Your task to perform on an android device: Turn on the flashlight Image 0: 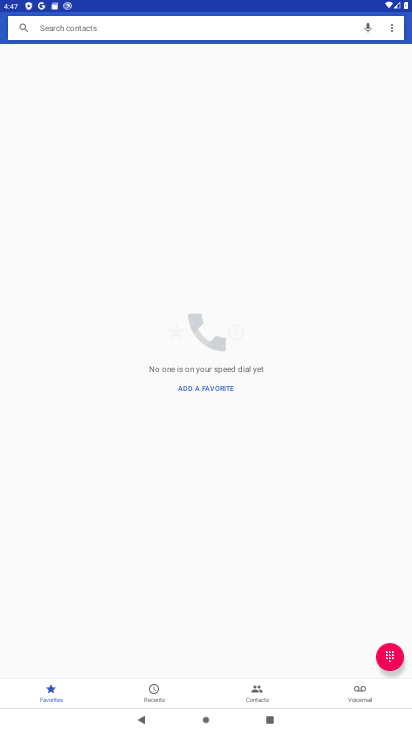
Step 0: press home button
Your task to perform on an android device: Turn on the flashlight Image 1: 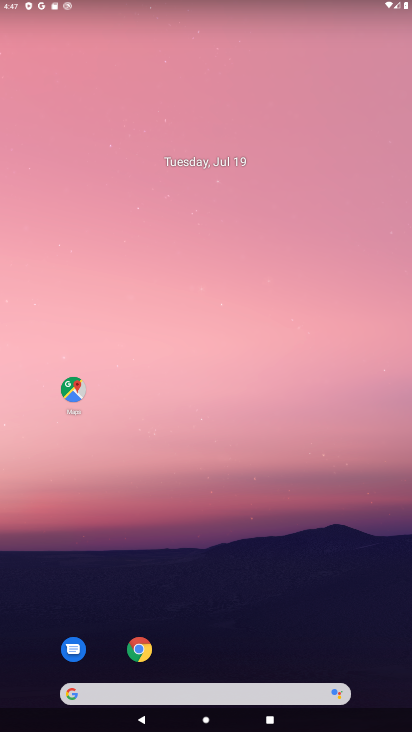
Step 1: drag from (204, 659) to (196, 52)
Your task to perform on an android device: Turn on the flashlight Image 2: 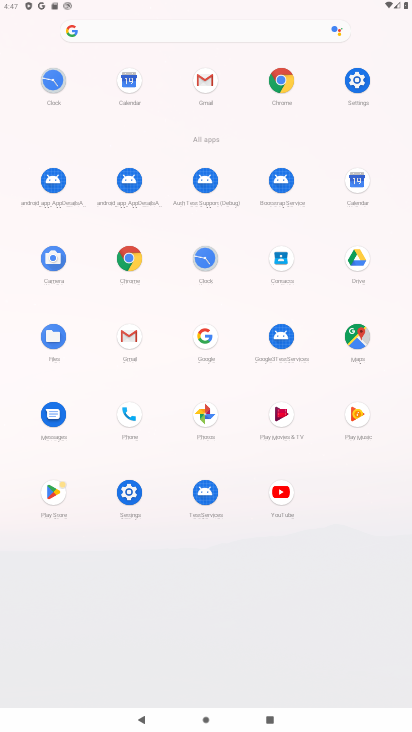
Step 2: click (357, 76)
Your task to perform on an android device: Turn on the flashlight Image 3: 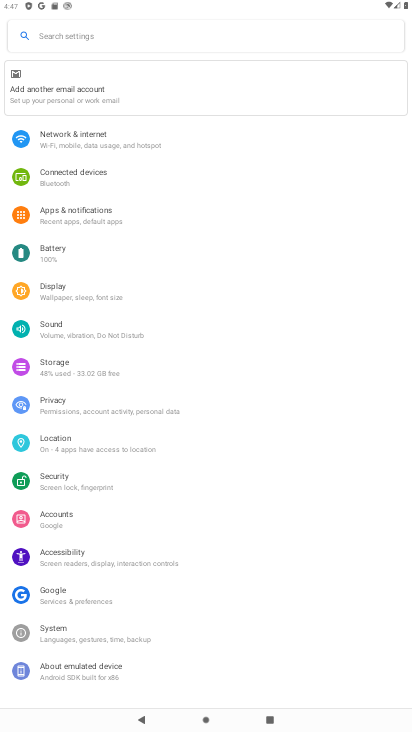
Step 3: click (63, 29)
Your task to perform on an android device: Turn on the flashlight Image 4: 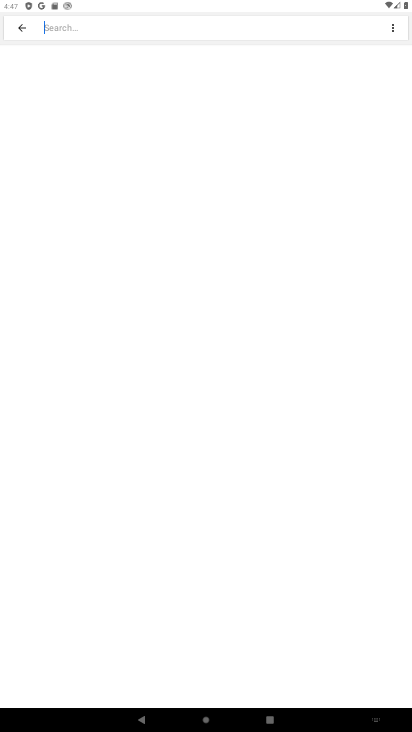
Step 4: type "flashlight"
Your task to perform on an android device: Turn on the flashlight Image 5: 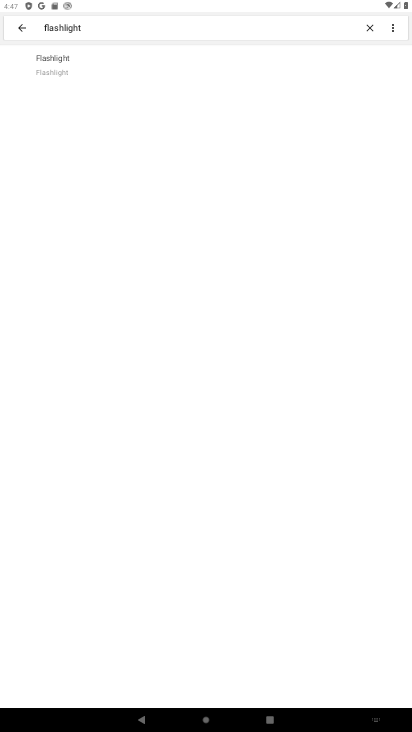
Step 5: click (84, 58)
Your task to perform on an android device: Turn on the flashlight Image 6: 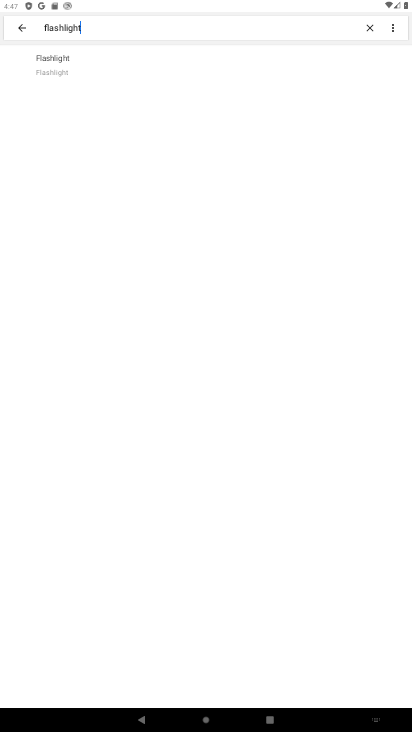
Step 6: click (84, 58)
Your task to perform on an android device: Turn on the flashlight Image 7: 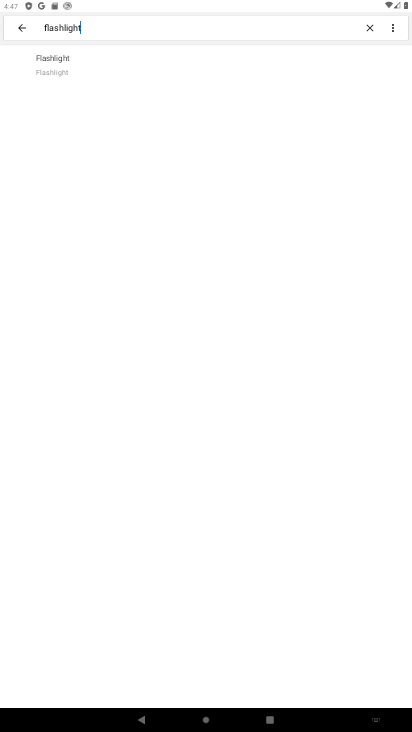
Step 7: click (67, 58)
Your task to perform on an android device: Turn on the flashlight Image 8: 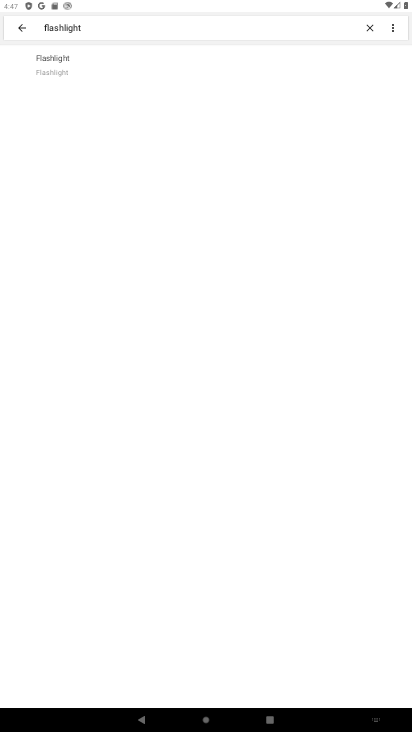
Step 8: task complete